Your task to perform on an android device: turn off data saver in the chrome app Image 0: 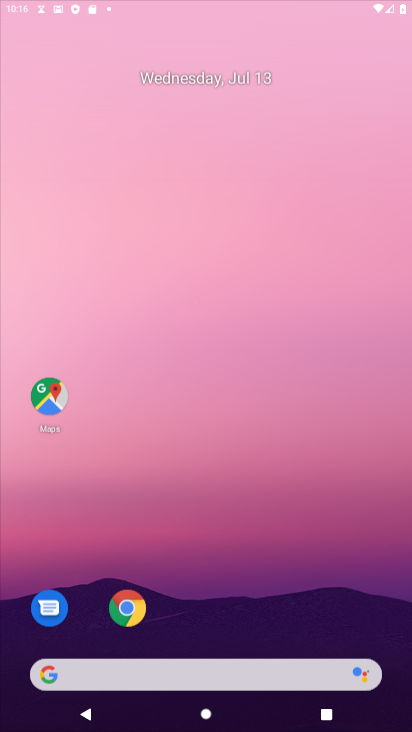
Step 0: click (393, 321)
Your task to perform on an android device: turn off data saver in the chrome app Image 1: 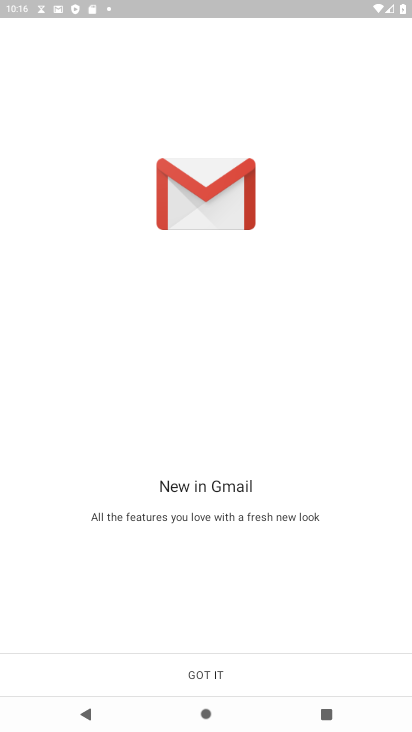
Step 1: press home button
Your task to perform on an android device: turn off data saver in the chrome app Image 2: 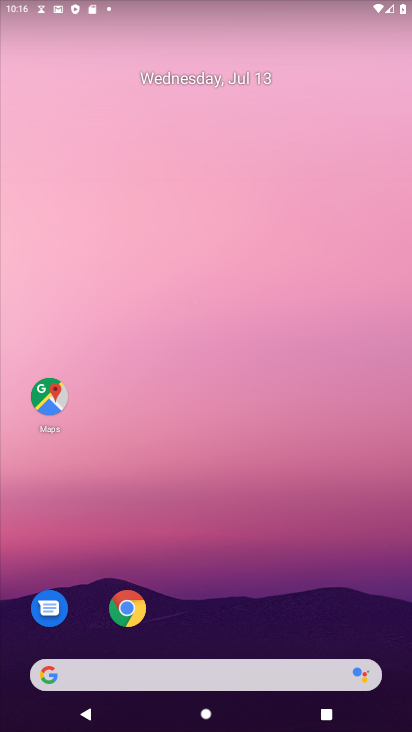
Step 2: drag from (229, 619) to (146, 35)
Your task to perform on an android device: turn off data saver in the chrome app Image 3: 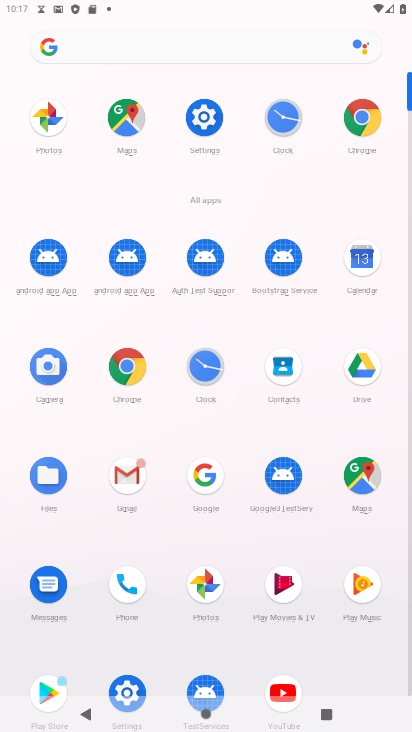
Step 3: click (130, 380)
Your task to perform on an android device: turn off data saver in the chrome app Image 4: 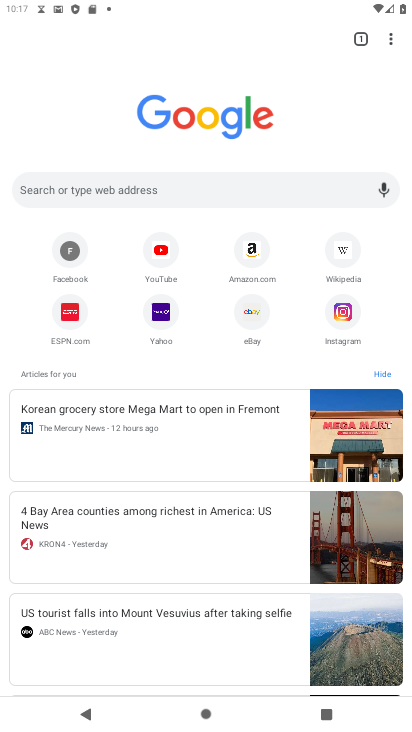
Step 4: click (384, 36)
Your task to perform on an android device: turn off data saver in the chrome app Image 5: 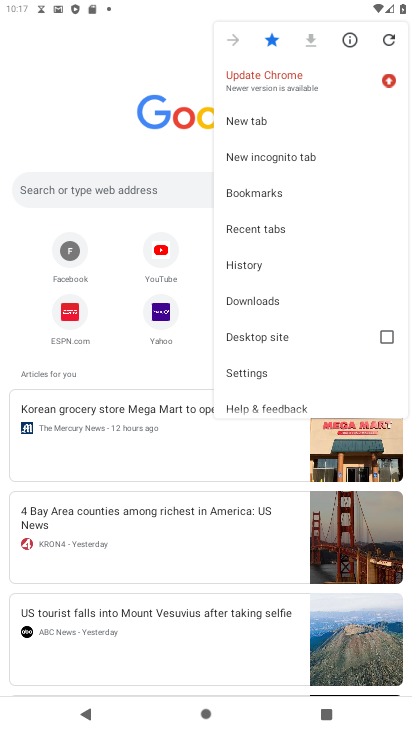
Step 5: click (251, 381)
Your task to perform on an android device: turn off data saver in the chrome app Image 6: 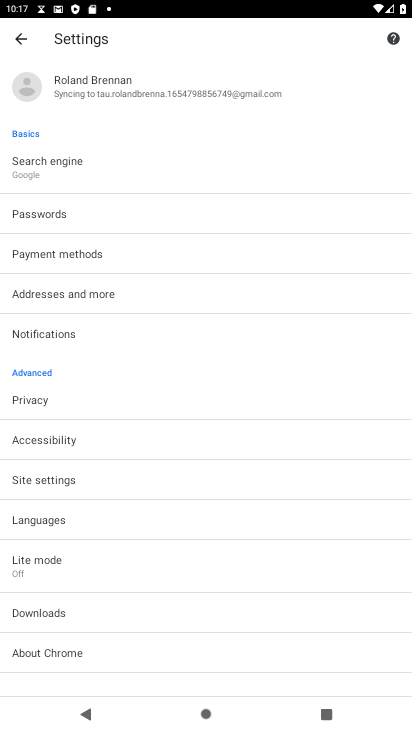
Step 6: click (50, 565)
Your task to perform on an android device: turn off data saver in the chrome app Image 7: 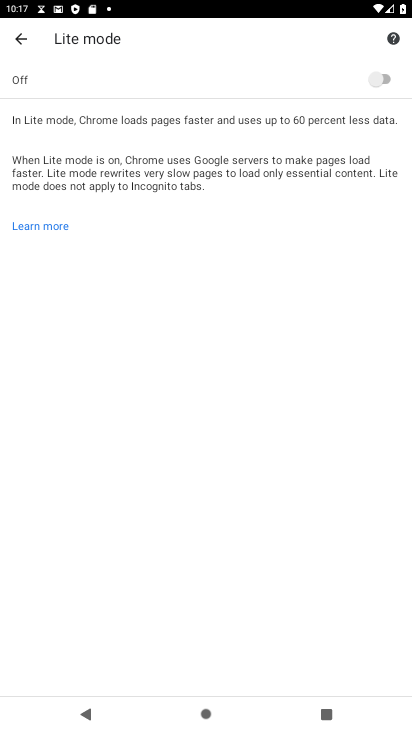
Step 7: task complete